Your task to perform on an android device: Open Google Maps Image 0: 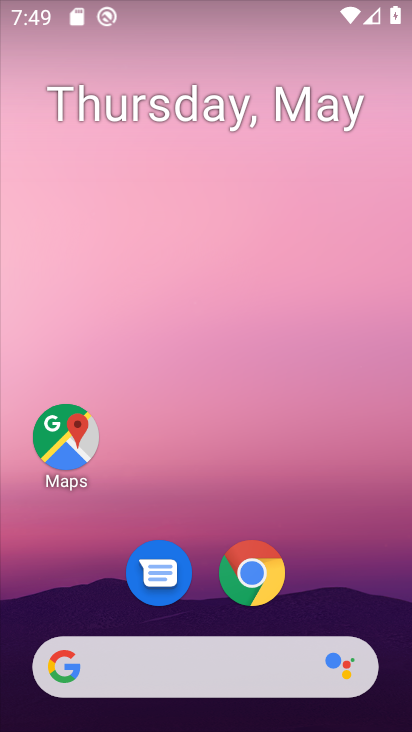
Step 0: click (59, 409)
Your task to perform on an android device: Open Google Maps Image 1: 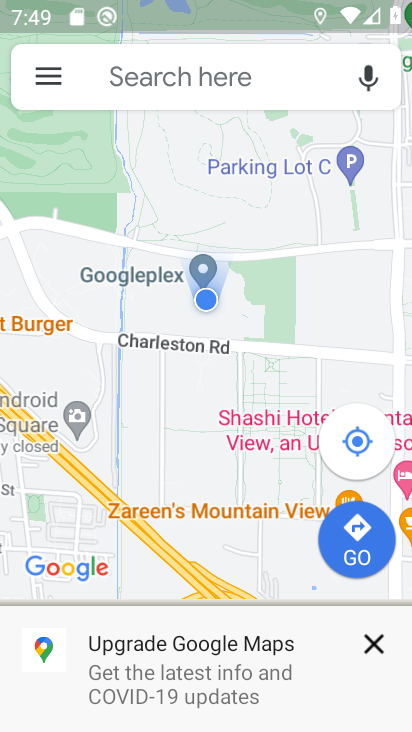
Step 1: drag from (245, 391) to (146, 207)
Your task to perform on an android device: Open Google Maps Image 2: 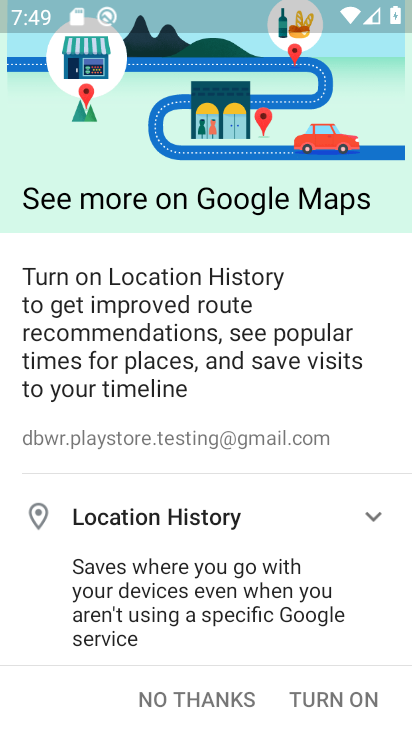
Step 2: click (323, 680)
Your task to perform on an android device: Open Google Maps Image 3: 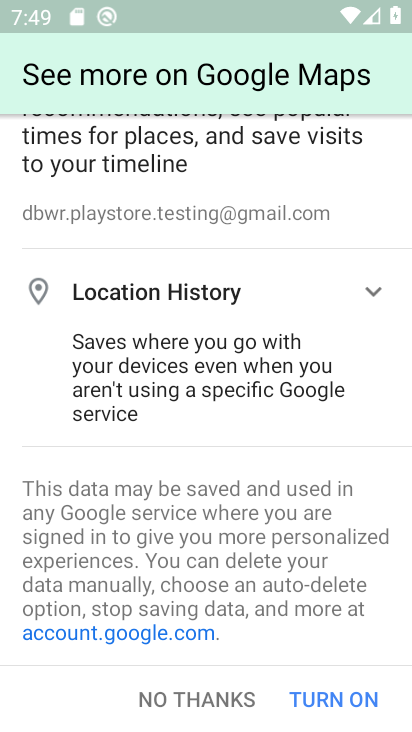
Step 3: click (328, 687)
Your task to perform on an android device: Open Google Maps Image 4: 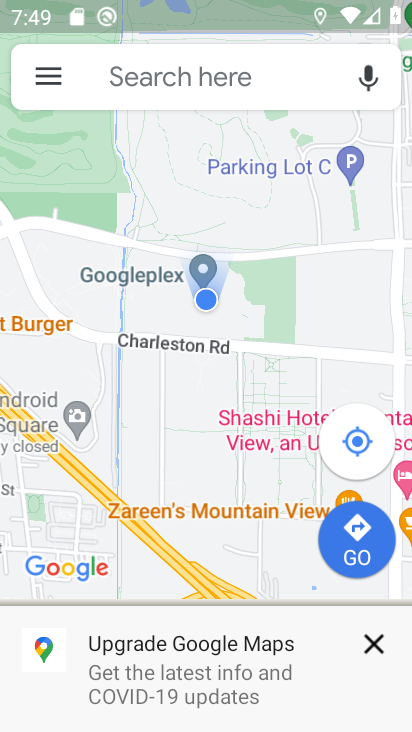
Step 4: task complete